Your task to perform on an android device: turn off notifications in google photos Image 0: 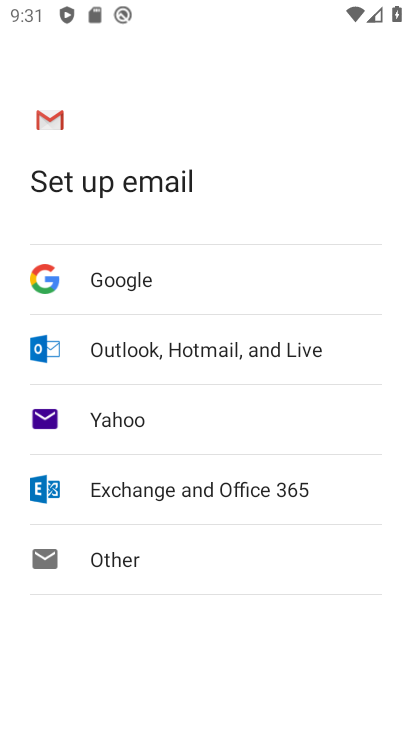
Step 0: press back button
Your task to perform on an android device: turn off notifications in google photos Image 1: 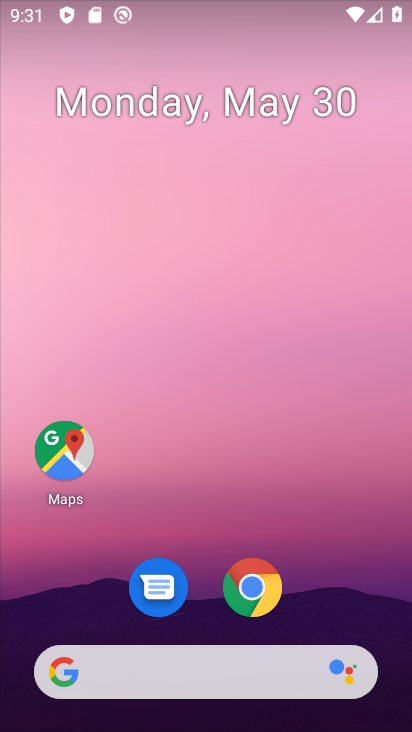
Step 1: drag from (315, 573) to (206, 19)
Your task to perform on an android device: turn off notifications in google photos Image 2: 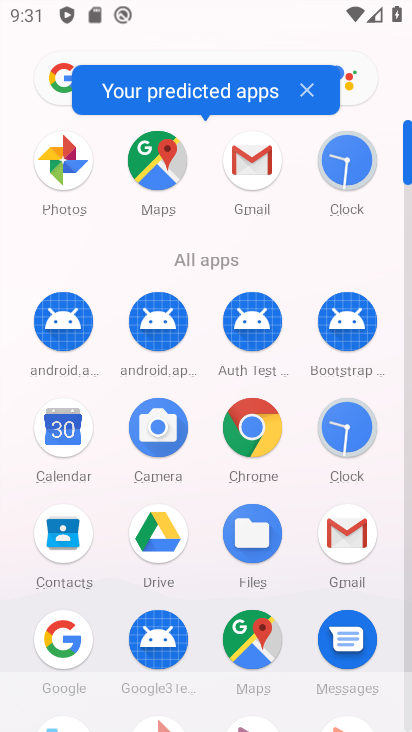
Step 2: drag from (0, 525) to (20, 195)
Your task to perform on an android device: turn off notifications in google photos Image 3: 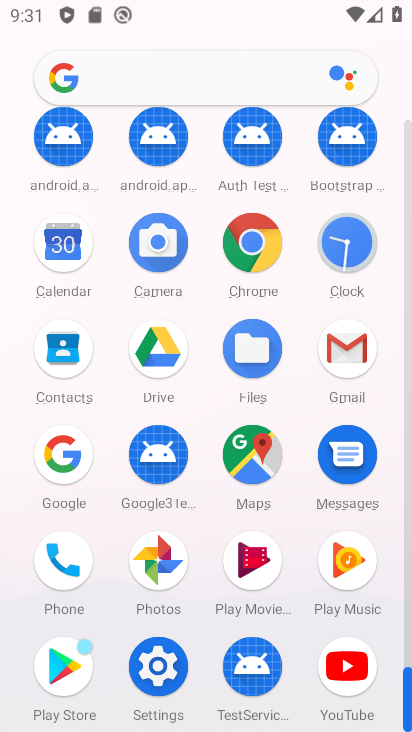
Step 3: click (157, 561)
Your task to perform on an android device: turn off notifications in google photos Image 4: 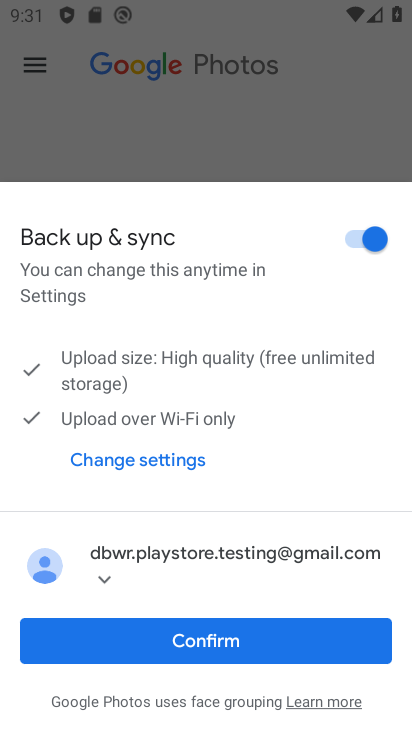
Step 4: click (220, 630)
Your task to perform on an android device: turn off notifications in google photos Image 5: 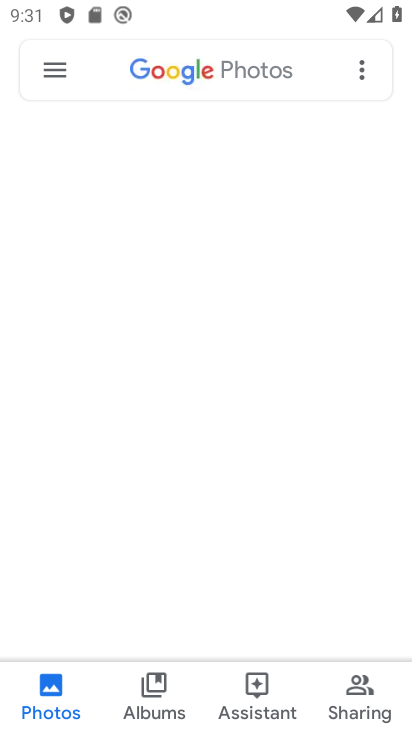
Step 5: click (36, 62)
Your task to perform on an android device: turn off notifications in google photos Image 6: 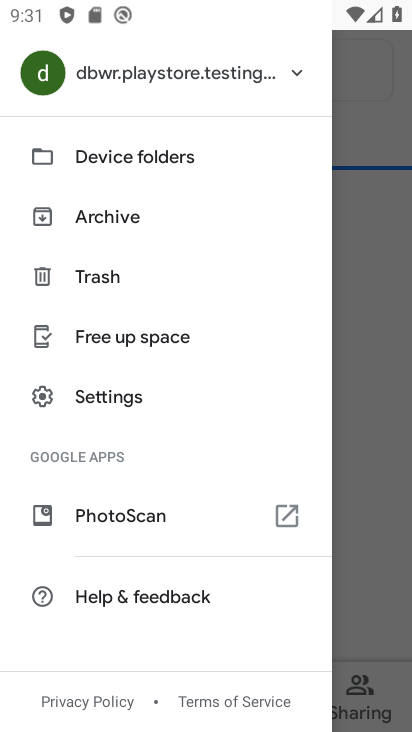
Step 6: click (142, 395)
Your task to perform on an android device: turn off notifications in google photos Image 7: 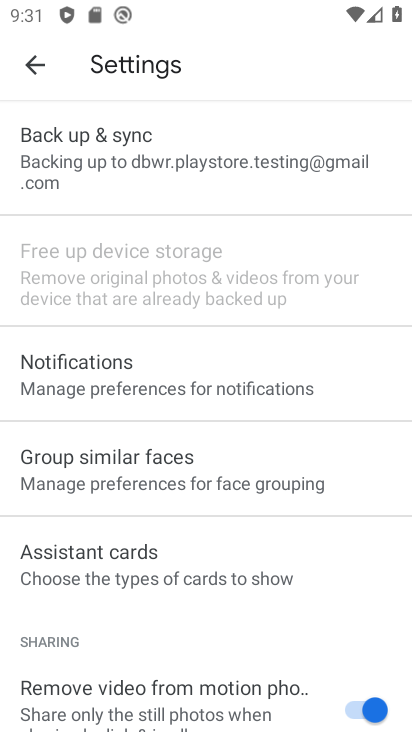
Step 7: click (153, 559)
Your task to perform on an android device: turn off notifications in google photos Image 8: 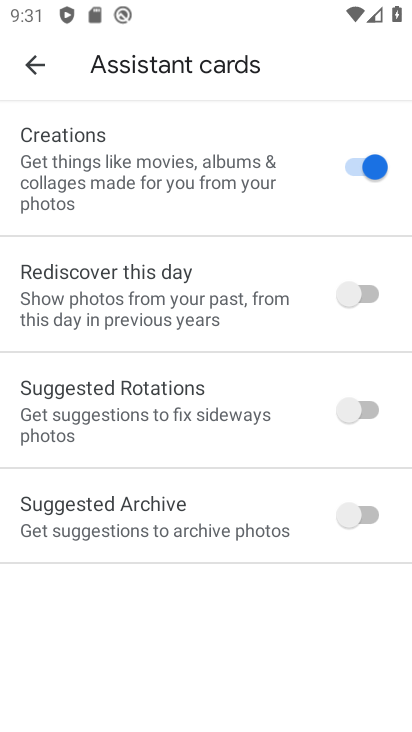
Step 8: click (33, 63)
Your task to perform on an android device: turn off notifications in google photos Image 9: 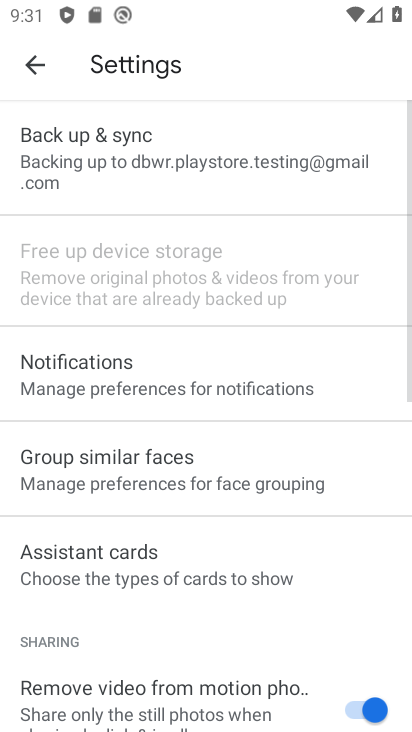
Step 9: click (124, 366)
Your task to perform on an android device: turn off notifications in google photos Image 10: 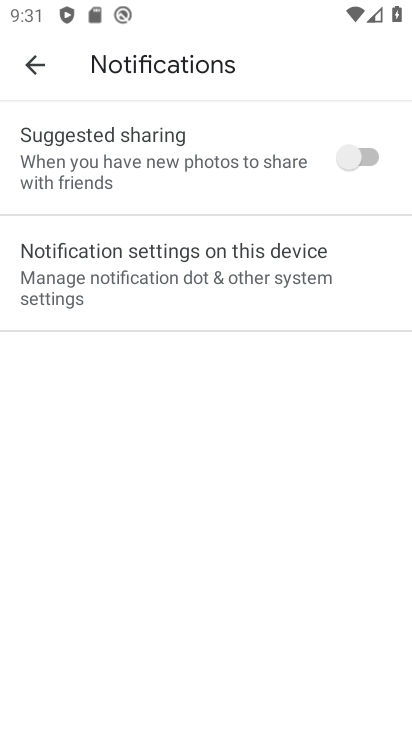
Step 10: click (186, 271)
Your task to perform on an android device: turn off notifications in google photos Image 11: 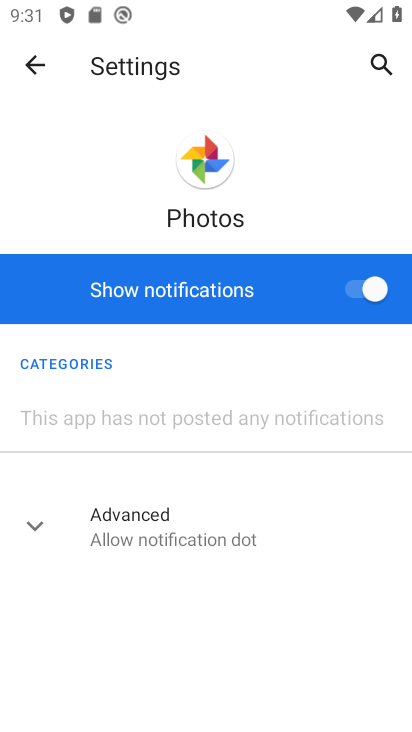
Step 11: click (370, 291)
Your task to perform on an android device: turn off notifications in google photos Image 12: 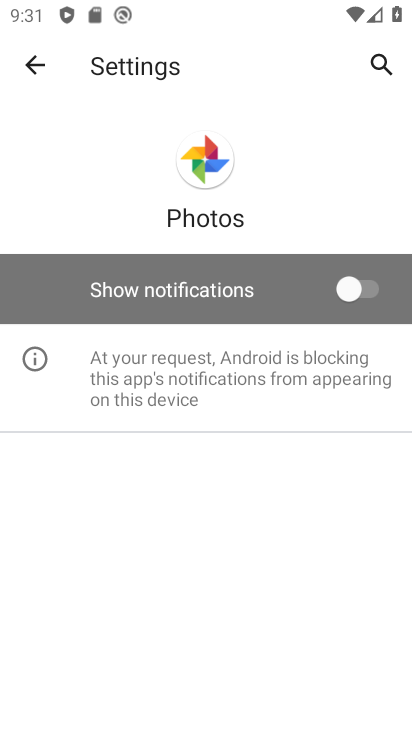
Step 12: task complete